Your task to perform on an android device: Open Chrome and go to settings Image 0: 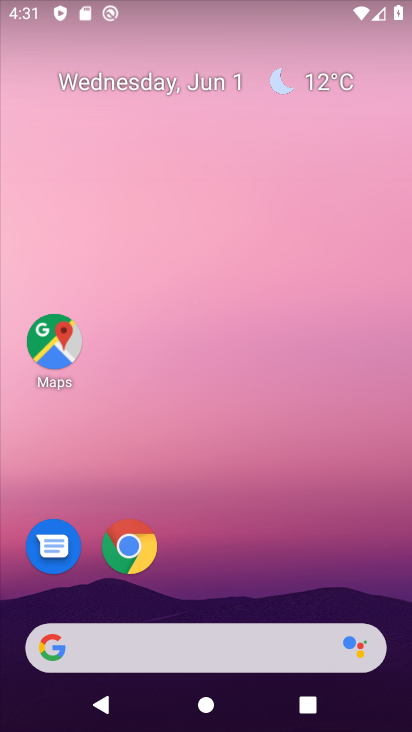
Step 0: drag from (307, 556) to (248, 14)
Your task to perform on an android device: Open Chrome and go to settings Image 1: 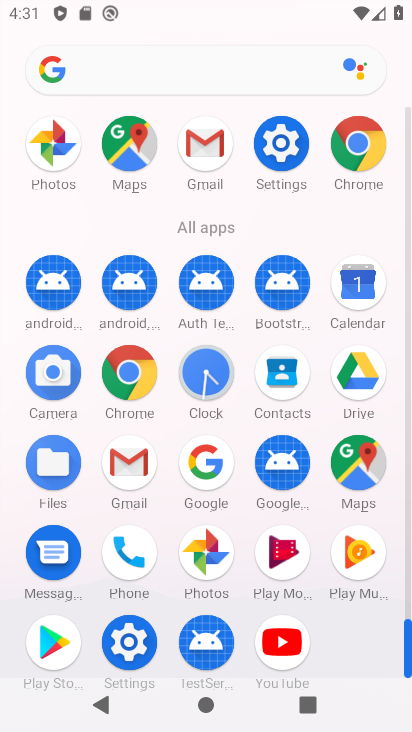
Step 1: click (128, 368)
Your task to perform on an android device: Open Chrome and go to settings Image 2: 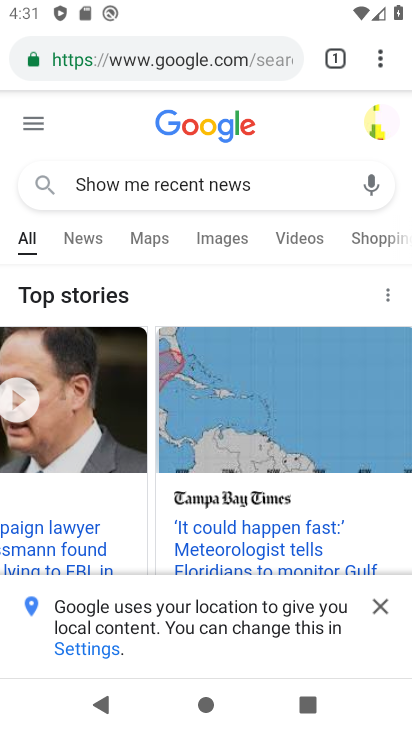
Step 2: task complete